Your task to perform on an android device: Show me the alarms in the clock app Image 0: 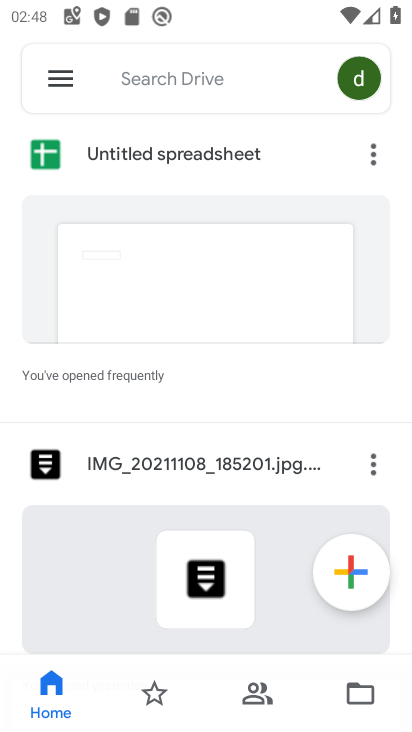
Step 0: press home button
Your task to perform on an android device: Show me the alarms in the clock app Image 1: 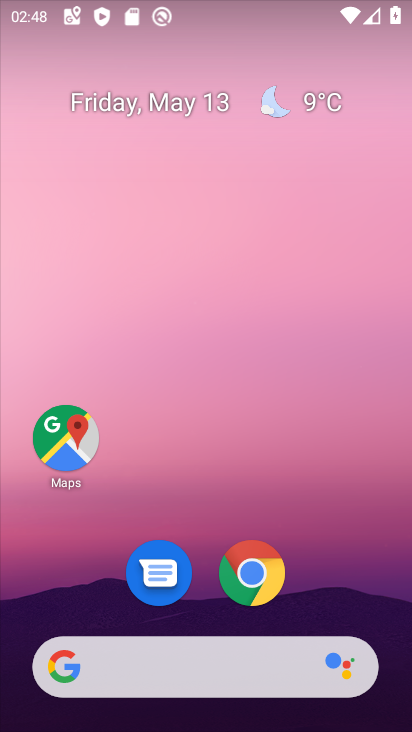
Step 1: drag from (327, 593) to (256, 73)
Your task to perform on an android device: Show me the alarms in the clock app Image 2: 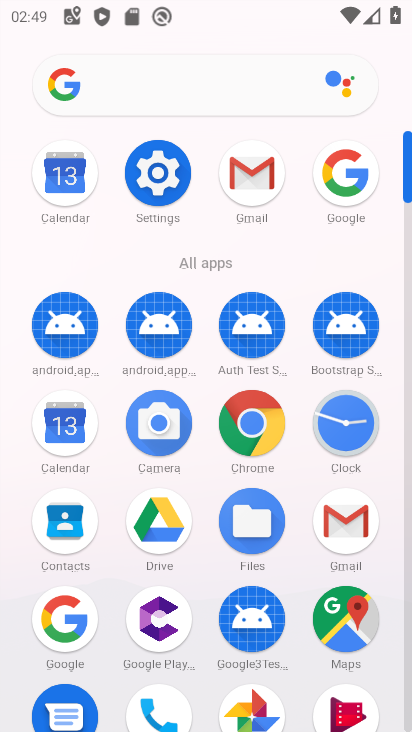
Step 2: click (347, 425)
Your task to perform on an android device: Show me the alarms in the clock app Image 3: 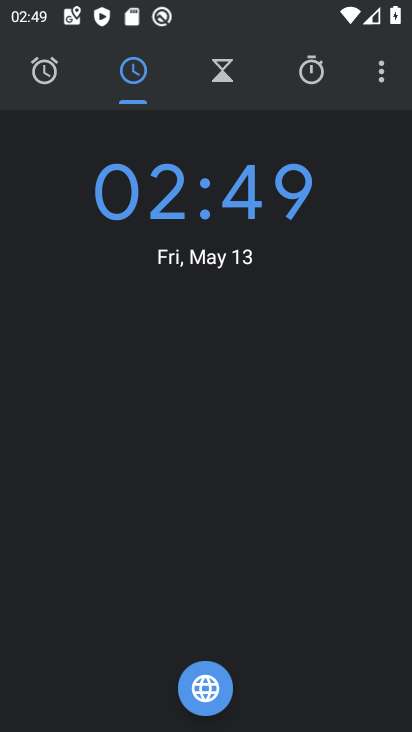
Step 3: click (51, 74)
Your task to perform on an android device: Show me the alarms in the clock app Image 4: 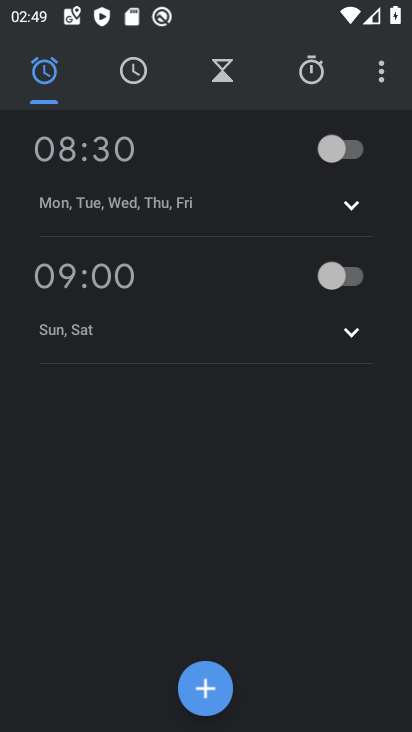
Step 4: task complete